Your task to perform on an android device: turn off picture-in-picture Image 0: 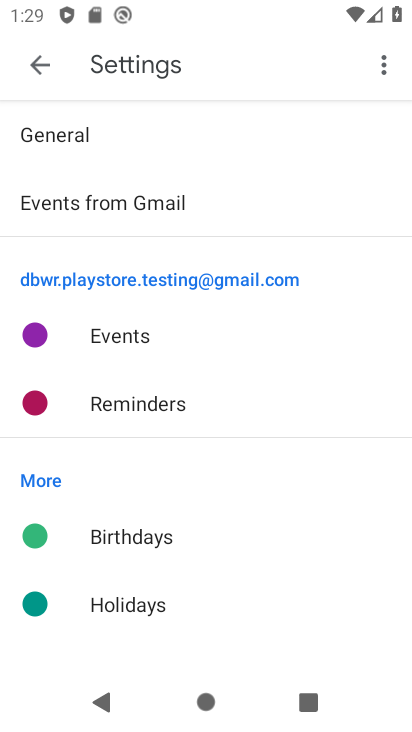
Step 0: press home button
Your task to perform on an android device: turn off picture-in-picture Image 1: 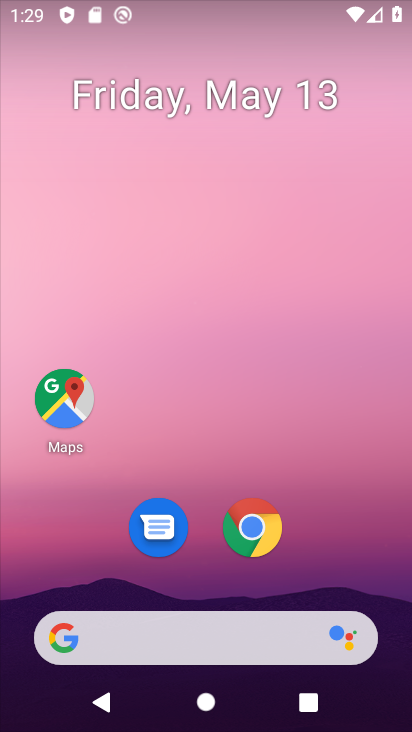
Step 1: click (254, 516)
Your task to perform on an android device: turn off picture-in-picture Image 2: 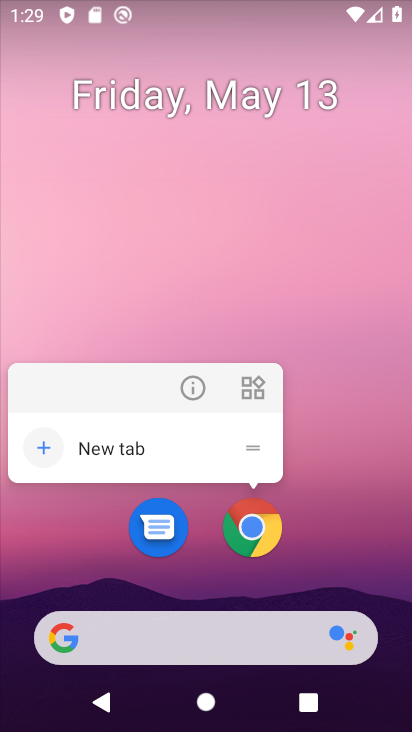
Step 2: click (202, 397)
Your task to perform on an android device: turn off picture-in-picture Image 3: 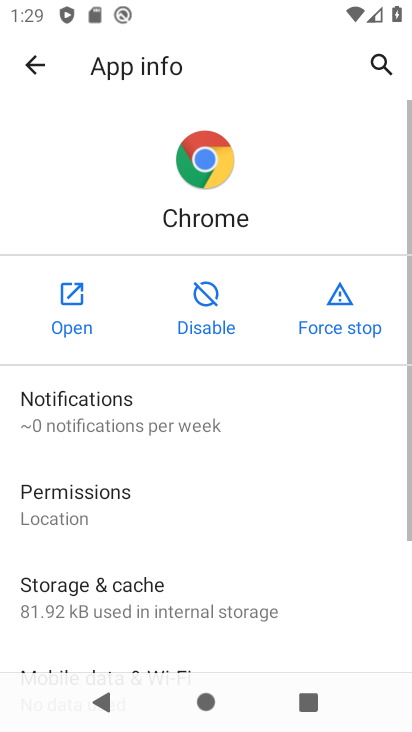
Step 3: drag from (209, 601) to (258, 142)
Your task to perform on an android device: turn off picture-in-picture Image 4: 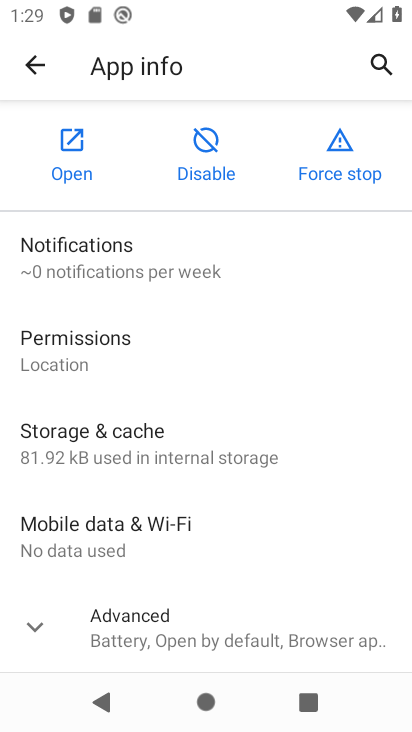
Step 4: click (168, 616)
Your task to perform on an android device: turn off picture-in-picture Image 5: 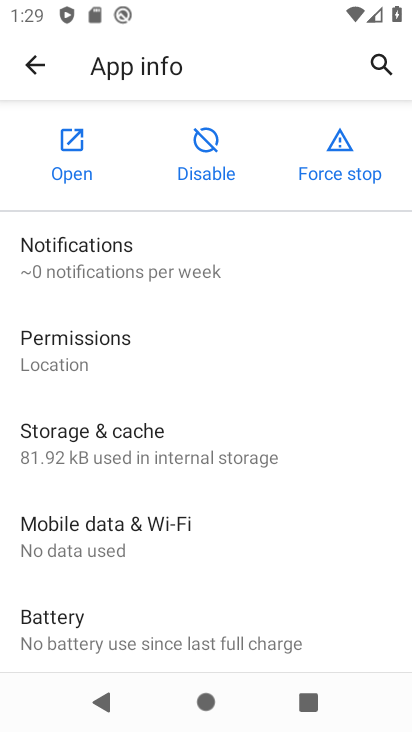
Step 5: drag from (150, 627) to (259, 177)
Your task to perform on an android device: turn off picture-in-picture Image 6: 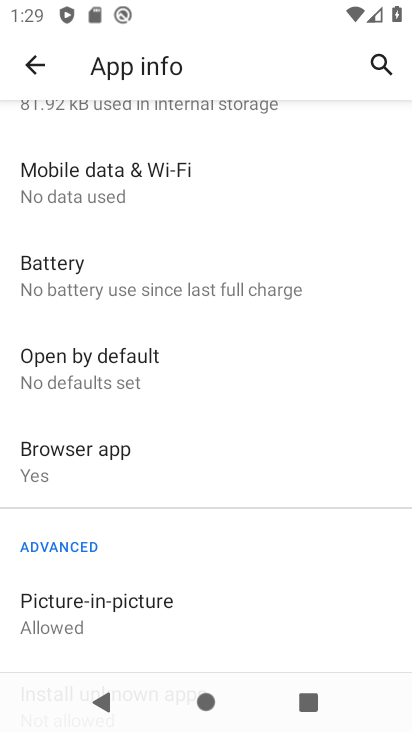
Step 6: click (131, 598)
Your task to perform on an android device: turn off picture-in-picture Image 7: 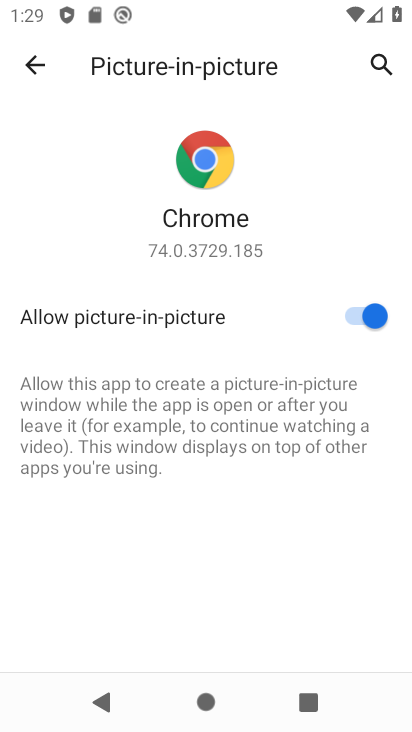
Step 7: click (349, 303)
Your task to perform on an android device: turn off picture-in-picture Image 8: 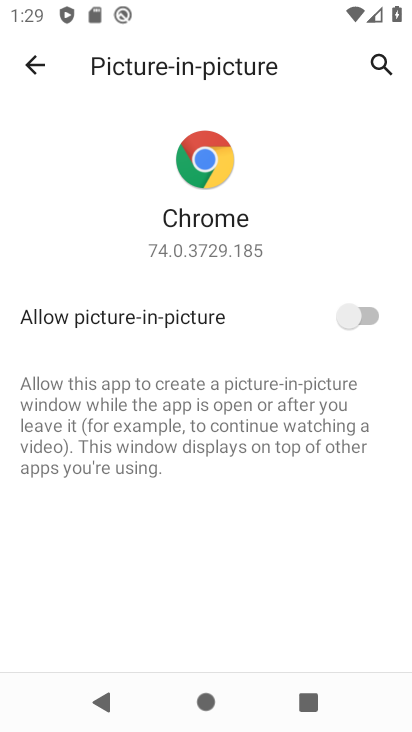
Step 8: task complete